Your task to perform on an android device: delete browsing data in the chrome app Image 0: 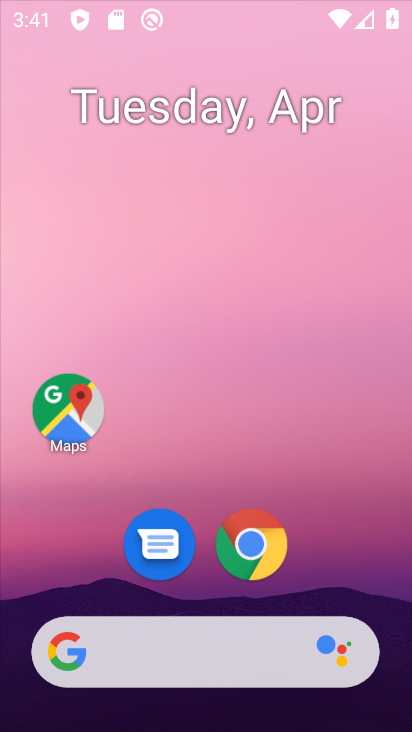
Step 0: click (248, 545)
Your task to perform on an android device: delete browsing data in the chrome app Image 1: 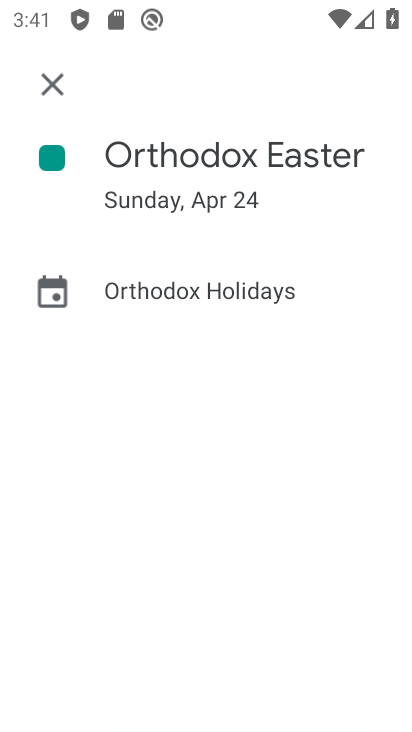
Step 1: press home button
Your task to perform on an android device: delete browsing data in the chrome app Image 2: 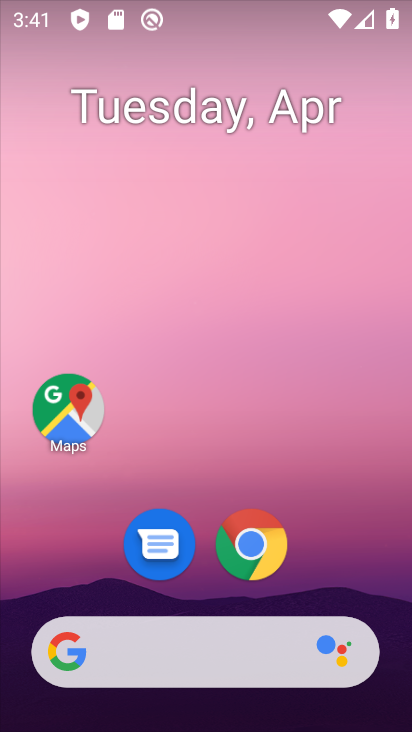
Step 2: click (246, 535)
Your task to perform on an android device: delete browsing data in the chrome app Image 3: 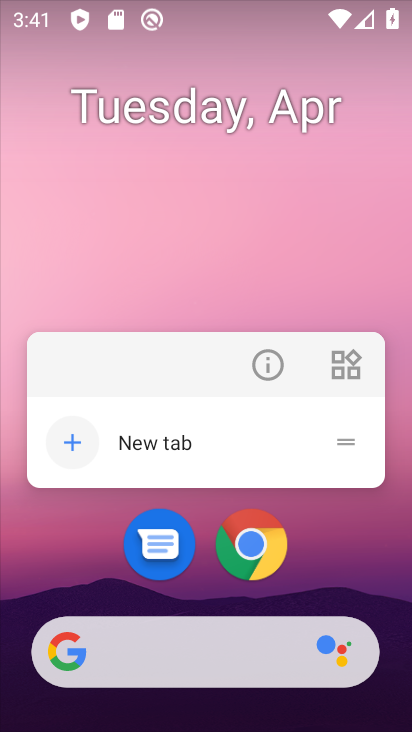
Step 3: click (251, 535)
Your task to perform on an android device: delete browsing data in the chrome app Image 4: 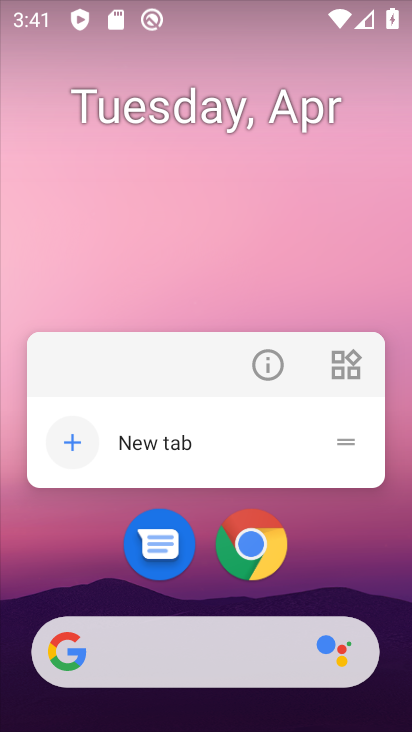
Step 4: click (251, 535)
Your task to perform on an android device: delete browsing data in the chrome app Image 5: 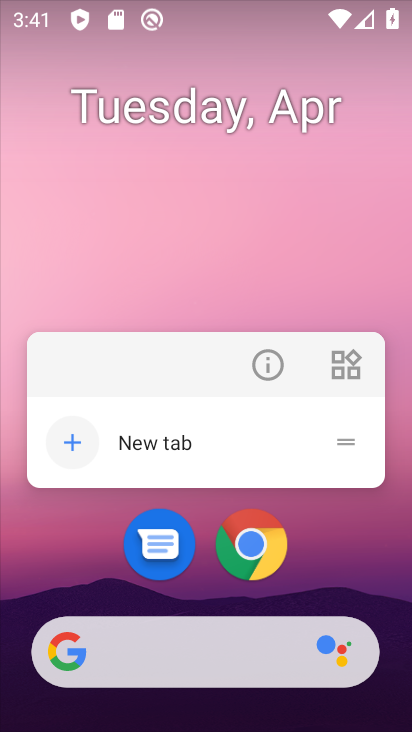
Step 5: click (241, 544)
Your task to perform on an android device: delete browsing data in the chrome app Image 6: 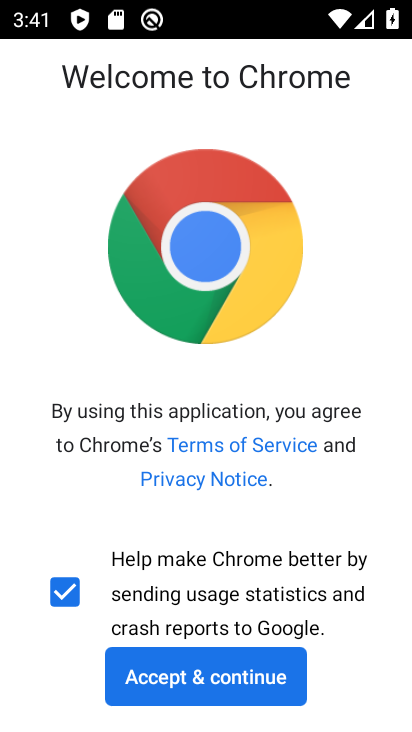
Step 6: click (217, 662)
Your task to perform on an android device: delete browsing data in the chrome app Image 7: 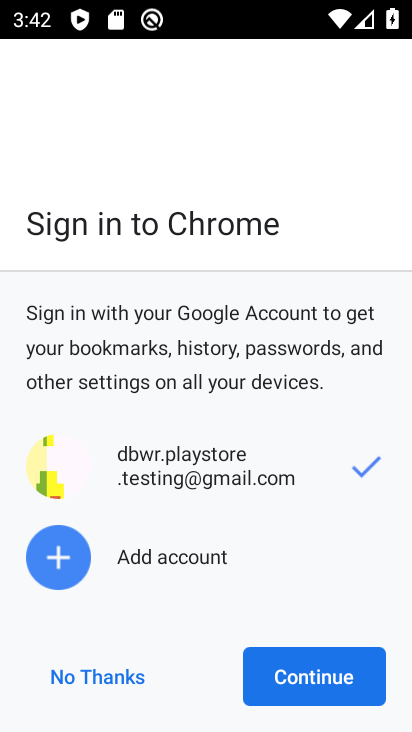
Step 7: click (273, 674)
Your task to perform on an android device: delete browsing data in the chrome app Image 8: 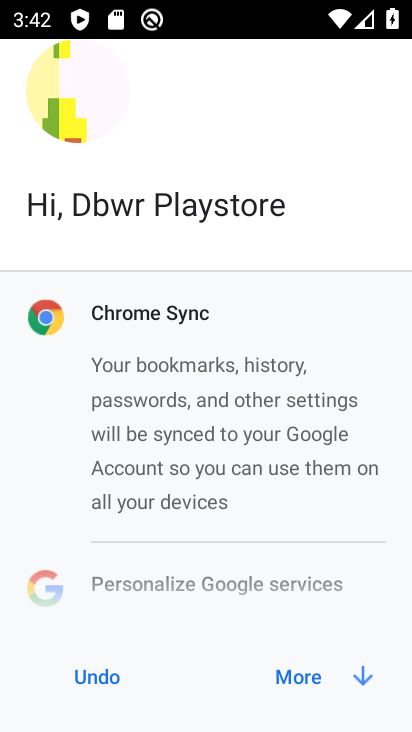
Step 8: click (273, 674)
Your task to perform on an android device: delete browsing data in the chrome app Image 9: 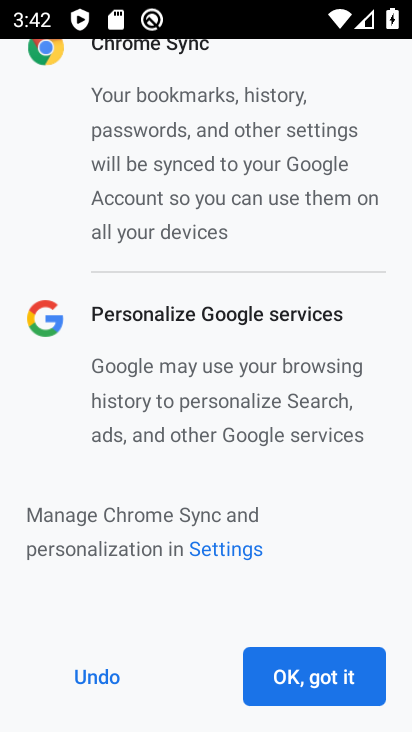
Step 9: click (273, 673)
Your task to perform on an android device: delete browsing data in the chrome app Image 10: 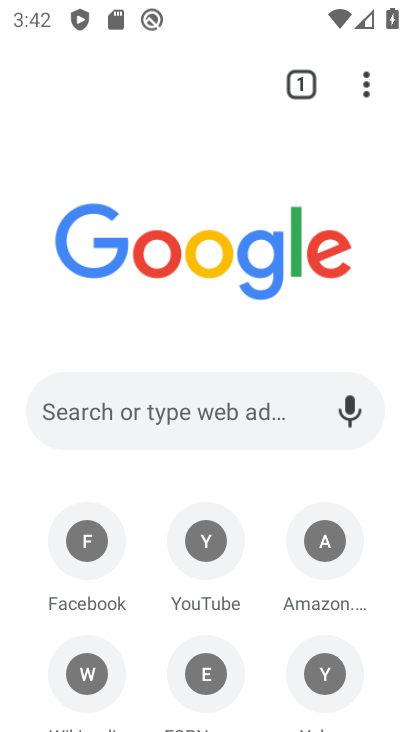
Step 10: click (362, 88)
Your task to perform on an android device: delete browsing data in the chrome app Image 11: 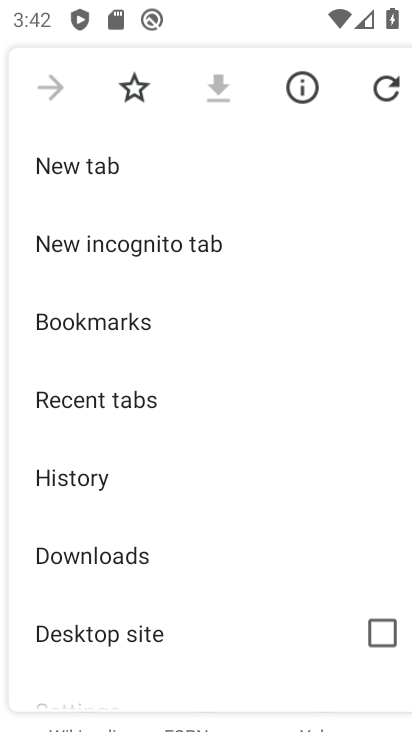
Step 11: click (98, 477)
Your task to perform on an android device: delete browsing data in the chrome app Image 12: 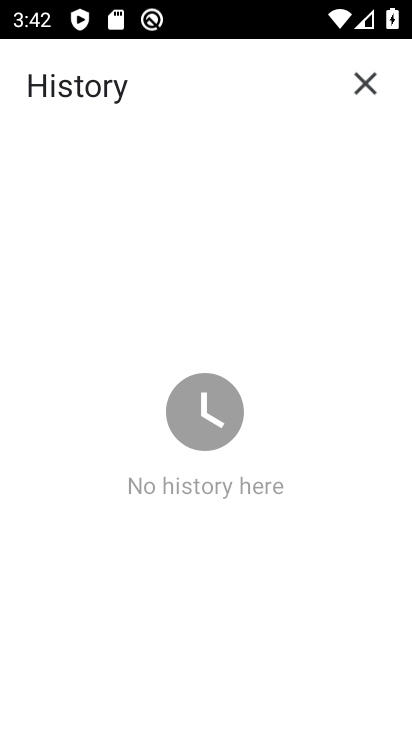
Step 12: task complete